Your task to perform on an android device: move an email to a new category in the gmail app Image 0: 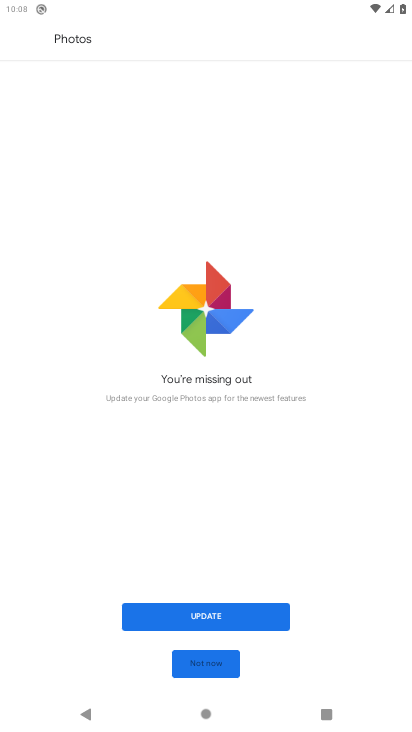
Step 0: press home button
Your task to perform on an android device: move an email to a new category in the gmail app Image 1: 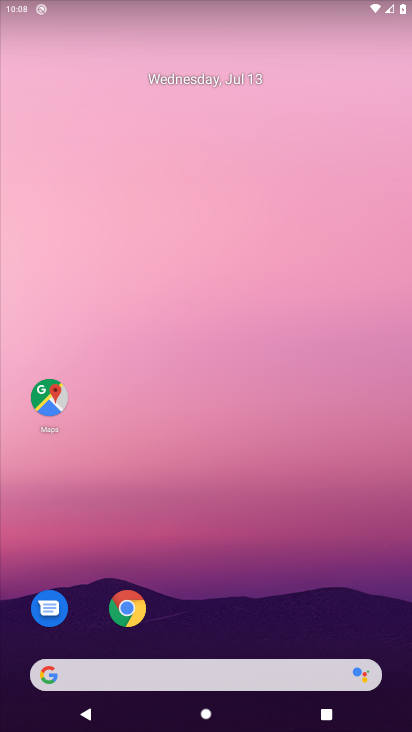
Step 1: drag from (34, 688) to (237, 117)
Your task to perform on an android device: move an email to a new category in the gmail app Image 2: 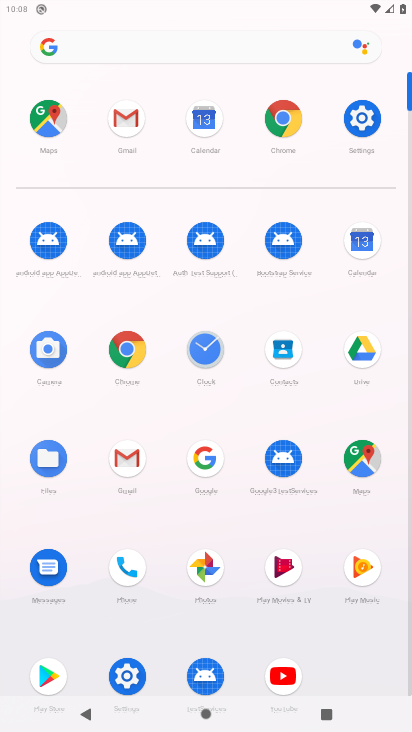
Step 2: click (122, 466)
Your task to perform on an android device: move an email to a new category in the gmail app Image 3: 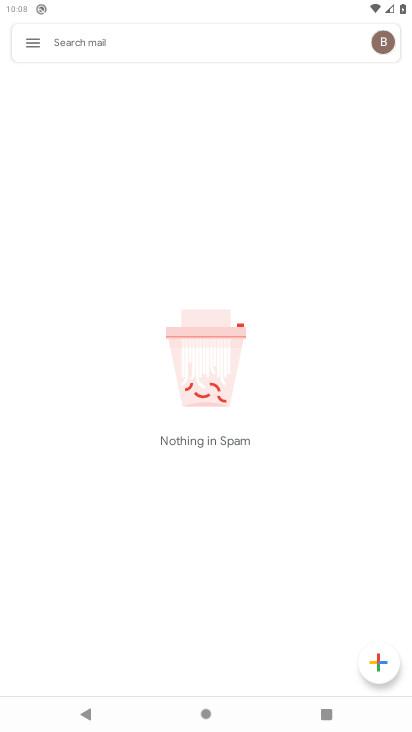
Step 3: click (36, 42)
Your task to perform on an android device: move an email to a new category in the gmail app Image 4: 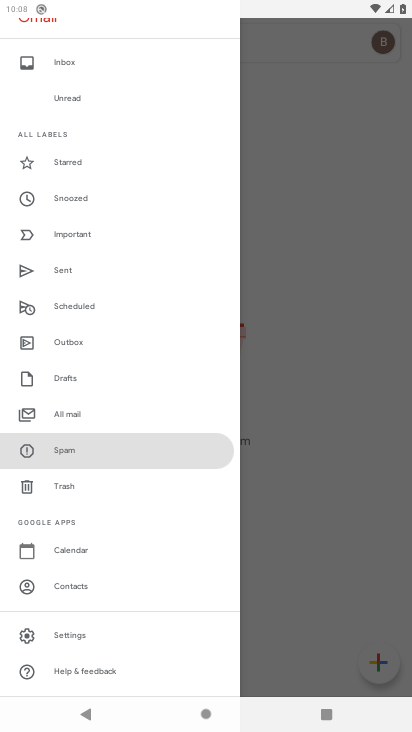
Step 4: click (87, 72)
Your task to perform on an android device: move an email to a new category in the gmail app Image 5: 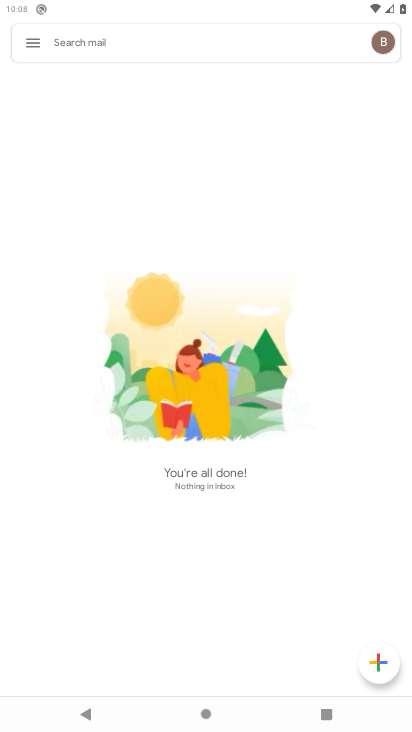
Step 5: task complete